Your task to perform on an android device: install app "Viber Messenger" Image 0: 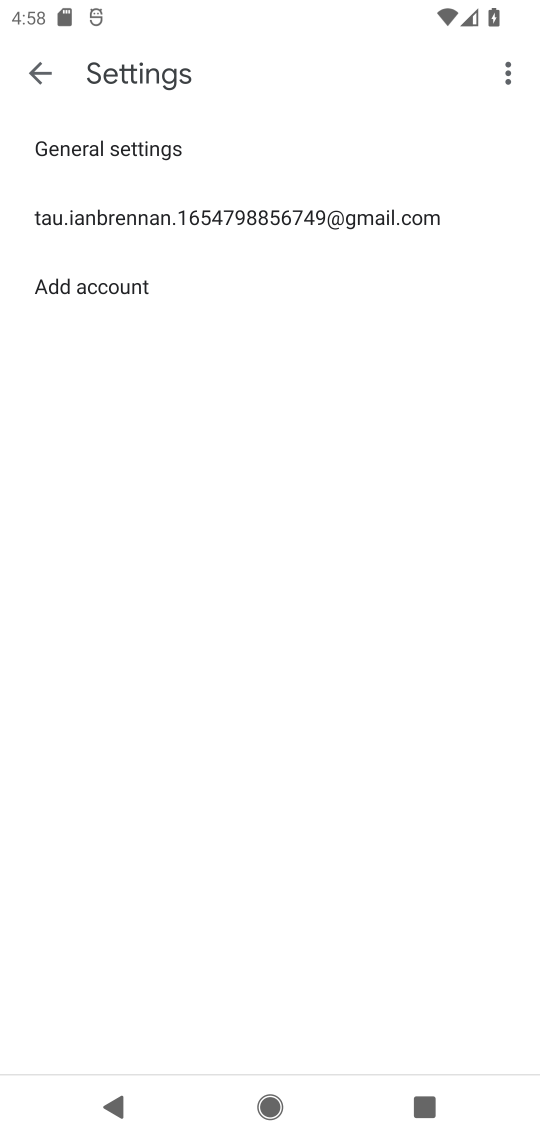
Step 0: press home button
Your task to perform on an android device: install app "Viber Messenger" Image 1: 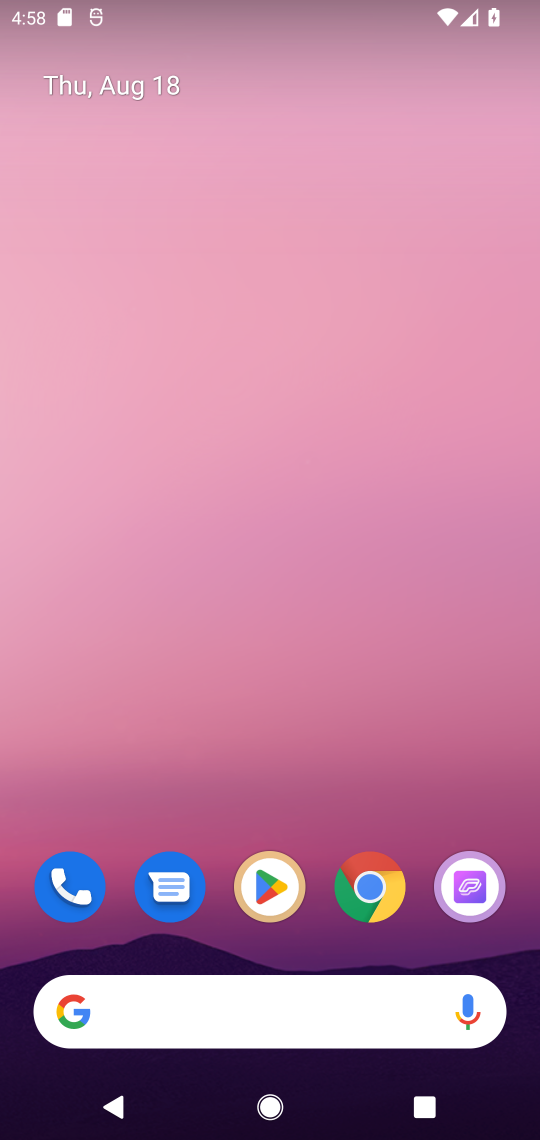
Step 1: drag from (319, 876) to (319, 54)
Your task to perform on an android device: install app "Viber Messenger" Image 2: 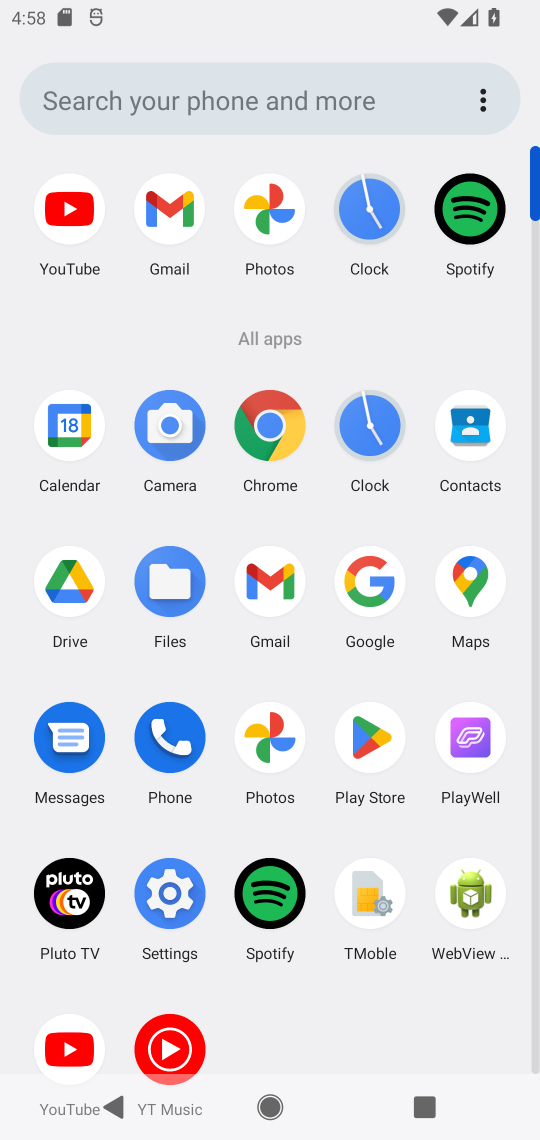
Step 2: click (369, 745)
Your task to perform on an android device: install app "Viber Messenger" Image 3: 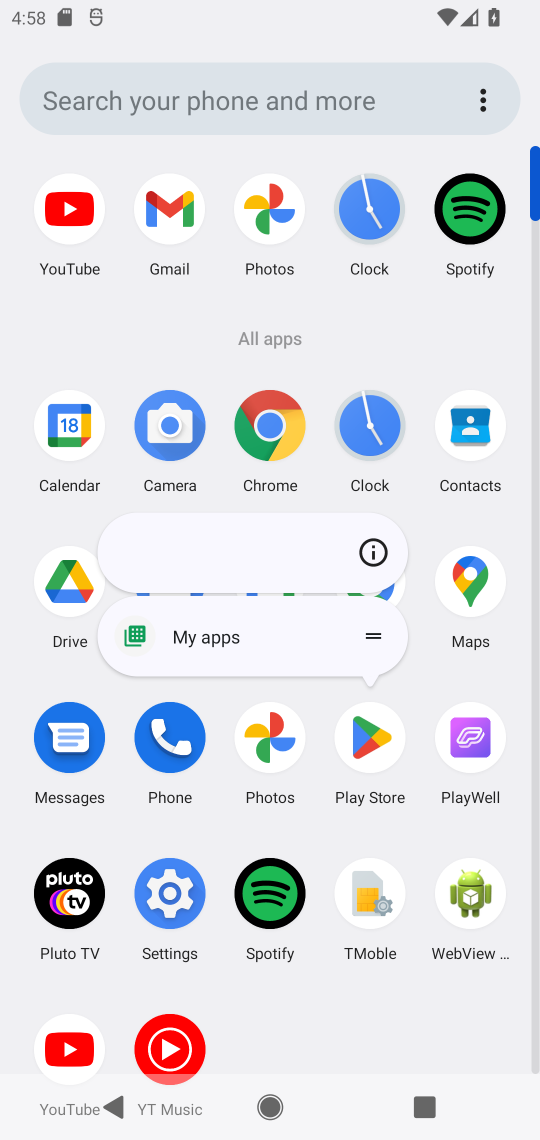
Step 3: click (365, 731)
Your task to perform on an android device: install app "Viber Messenger" Image 4: 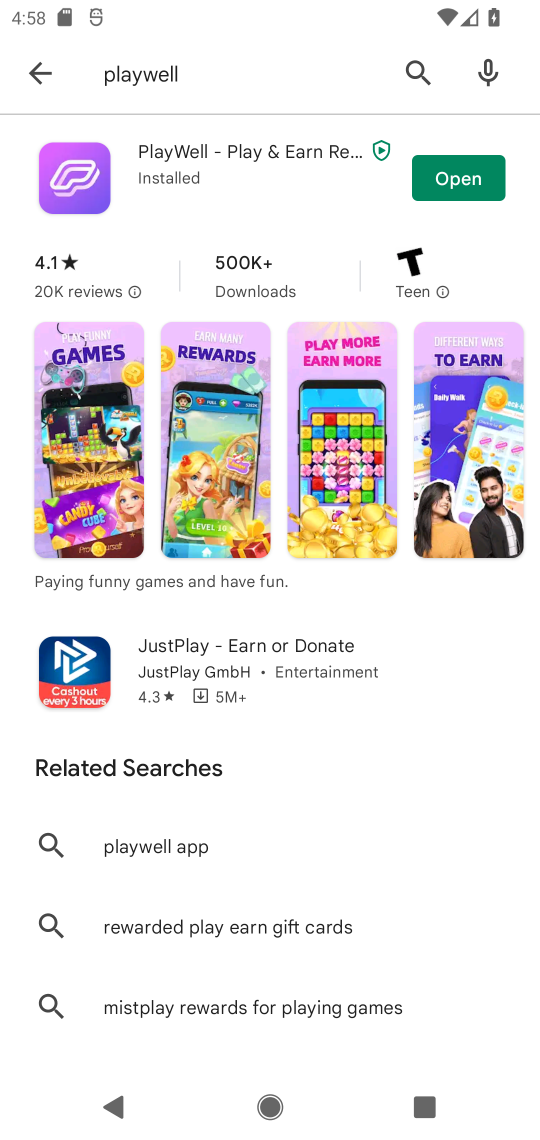
Step 4: click (410, 79)
Your task to perform on an android device: install app "Viber Messenger" Image 5: 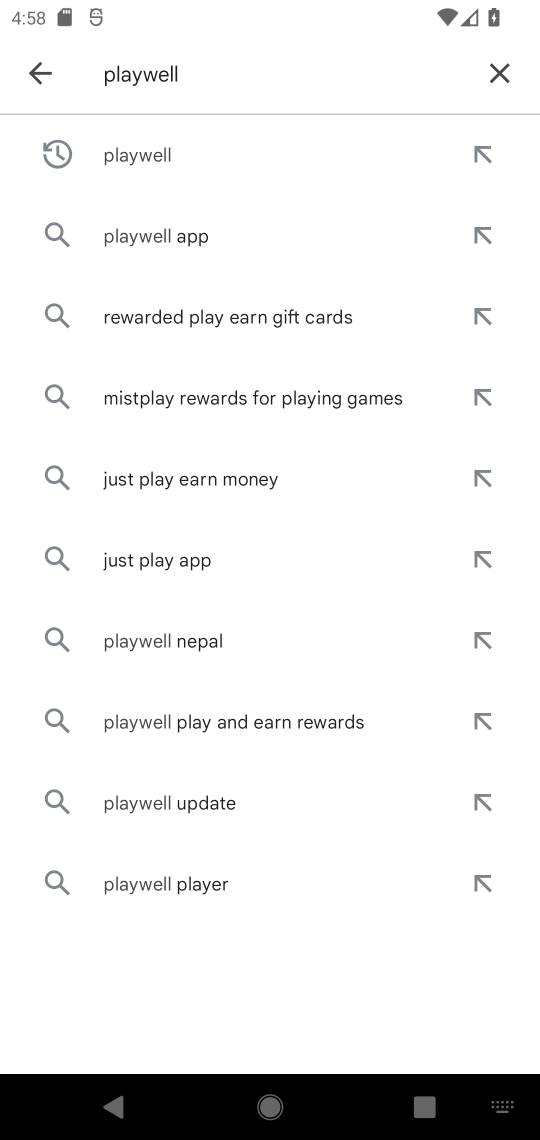
Step 5: click (501, 65)
Your task to perform on an android device: install app "Viber Messenger" Image 6: 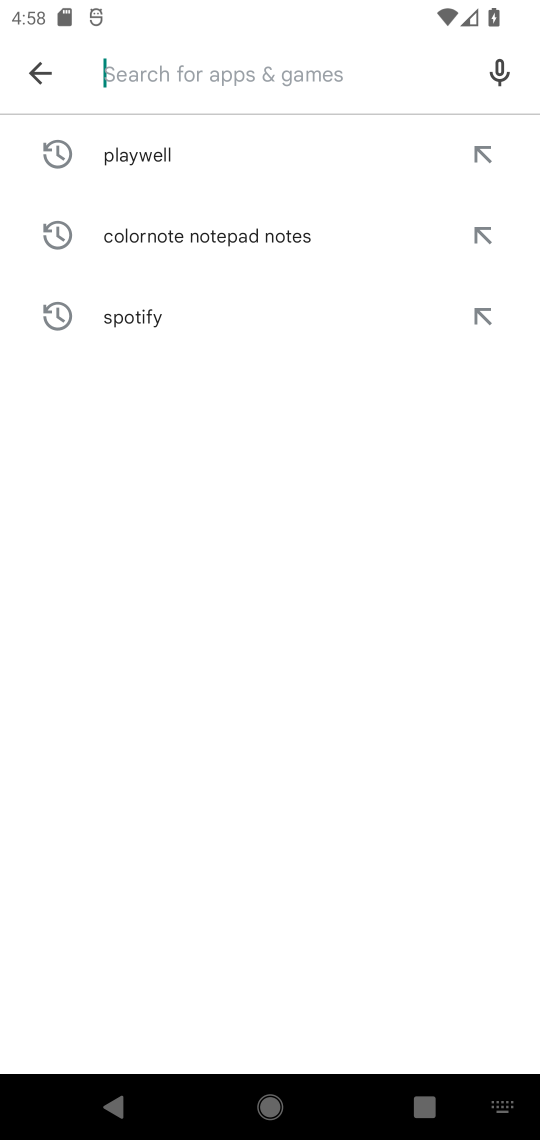
Step 6: type "Viber Messenger"
Your task to perform on an android device: install app "Viber Messenger" Image 7: 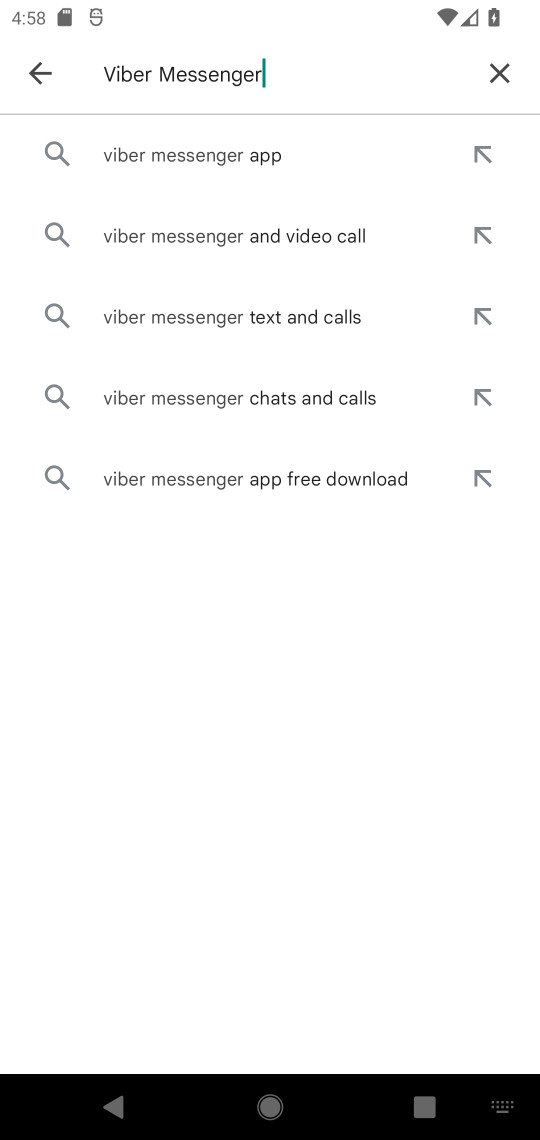
Step 7: click (226, 153)
Your task to perform on an android device: install app "Viber Messenger" Image 8: 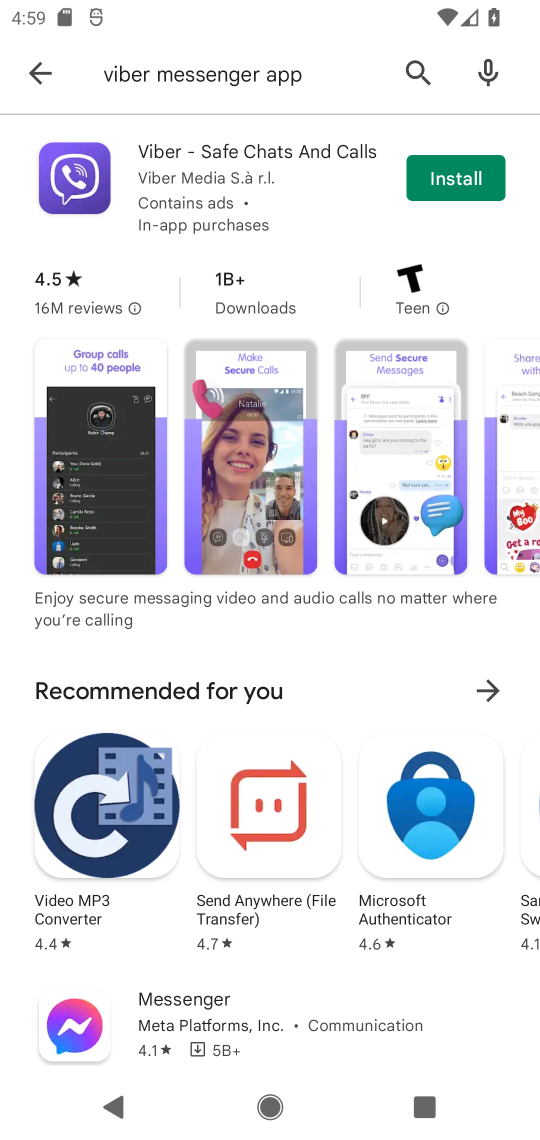
Step 8: click (461, 175)
Your task to perform on an android device: install app "Viber Messenger" Image 9: 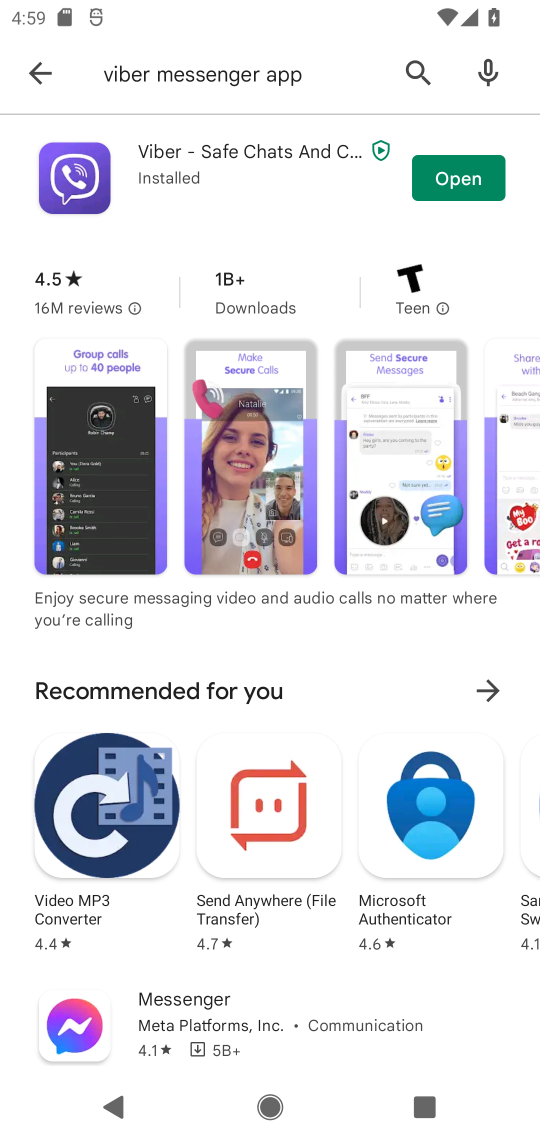
Step 9: task complete